Your task to perform on an android device: Open Google Maps and go to "Timeline" Image 0: 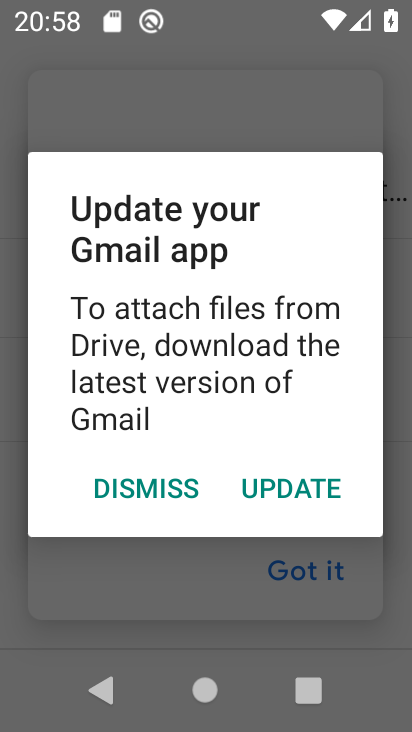
Step 0: press home button
Your task to perform on an android device: Open Google Maps and go to "Timeline" Image 1: 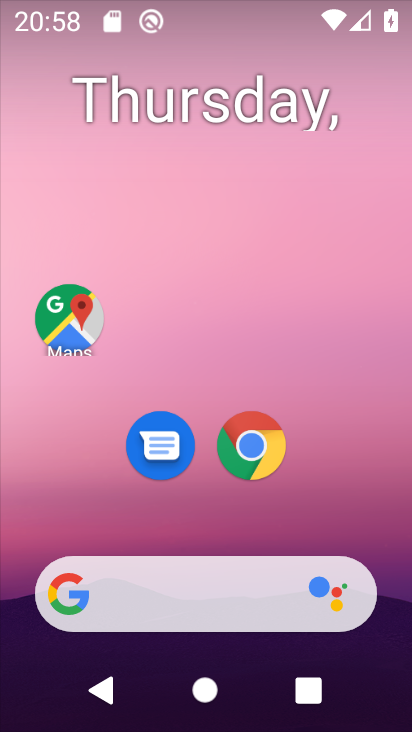
Step 1: click (82, 331)
Your task to perform on an android device: Open Google Maps and go to "Timeline" Image 2: 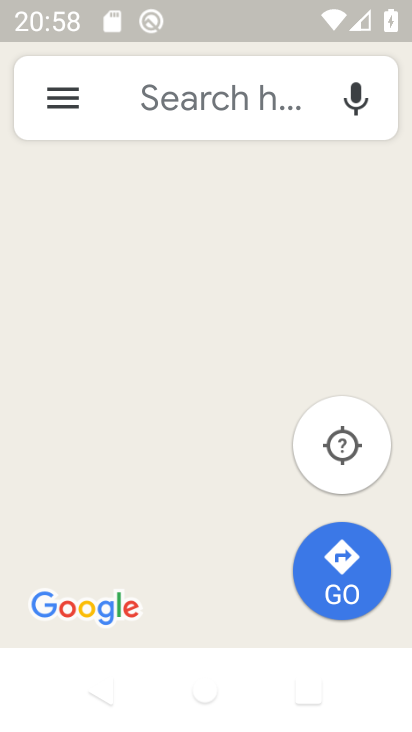
Step 2: click (59, 91)
Your task to perform on an android device: Open Google Maps and go to "Timeline" Image 3: 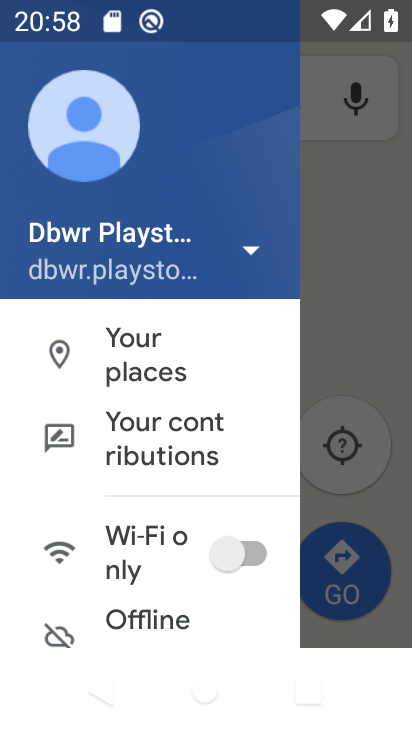
Step 3: task complete